Your task to perform on an android device: check google app version Image 0: 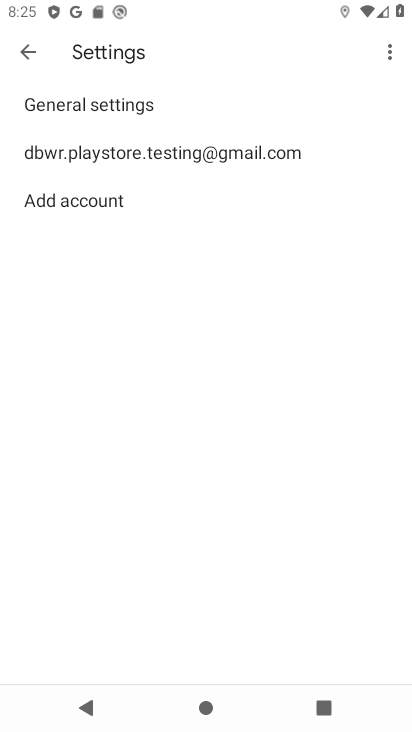
Step 0: press back button
Your task to perform on an android device: check google app version Image 1: 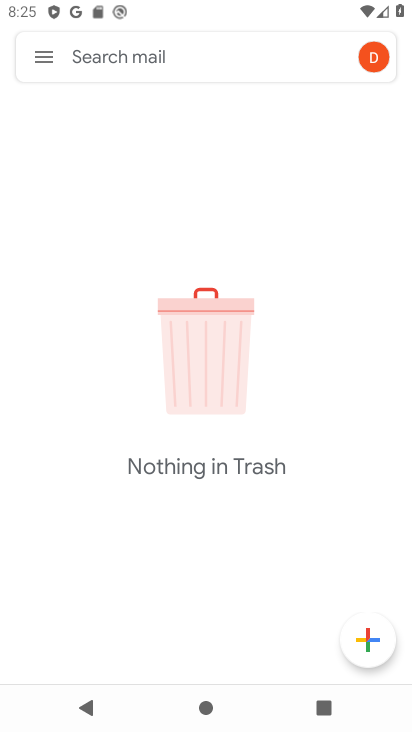
Step 1: press back button
Your task to perform on an android device: check google app version Image 2: 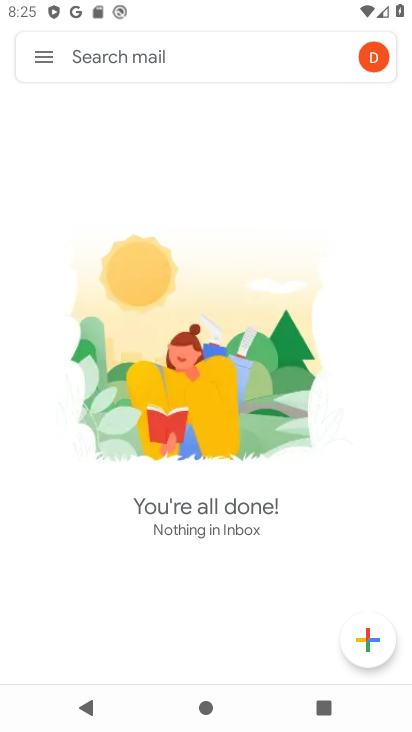
Step 2: press back button
Your task to perform on an android device: check google app version Image 3: 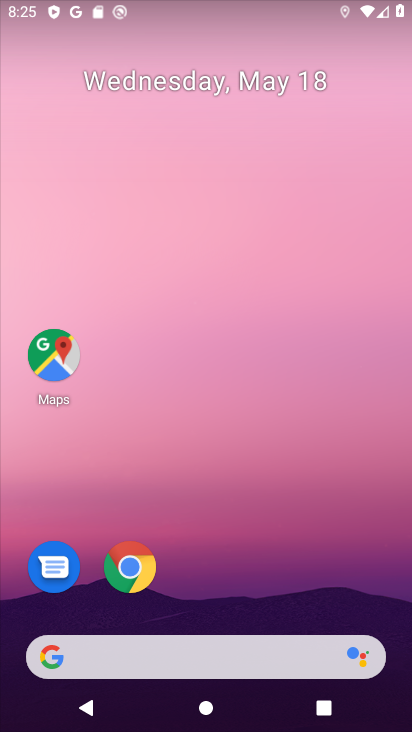
Step 3: drag from (269, 524) to (260, 0)
Your task to perform on an android device: check google app version Image 4: 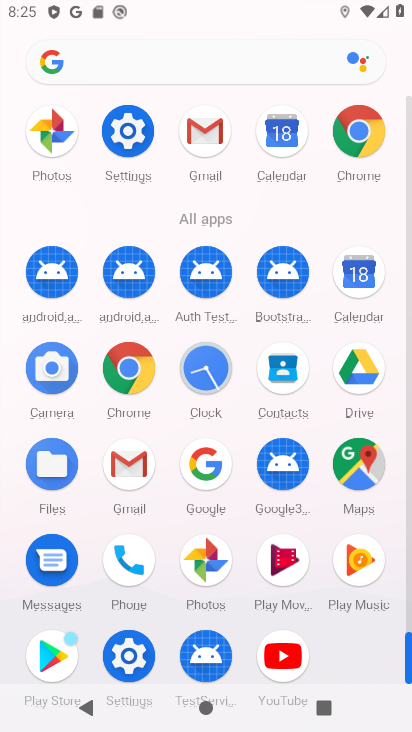
Step 4: click (213, 457)
Your task to perform on an android device: check google app version Image 5: 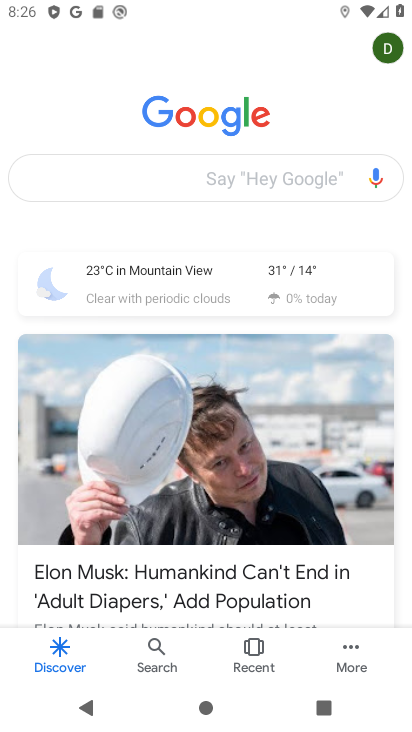
Step 5: click (343, 645)
Your task to perform on an android device: check google app version Image 6: 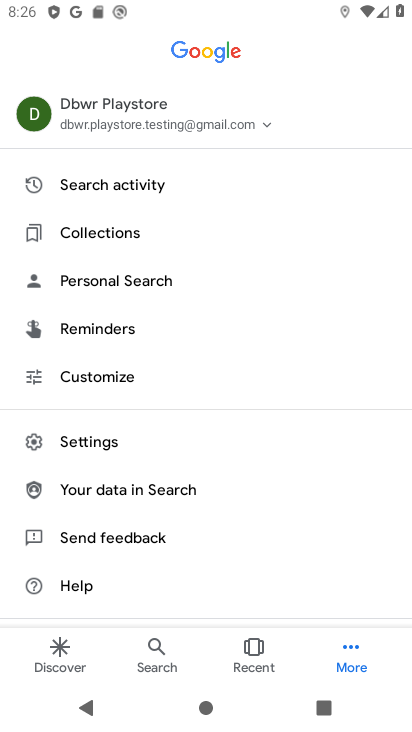
Step 6: drag from (346, 645) to (118, 441)
Your task to perform on an android device: check google app version Image 7: 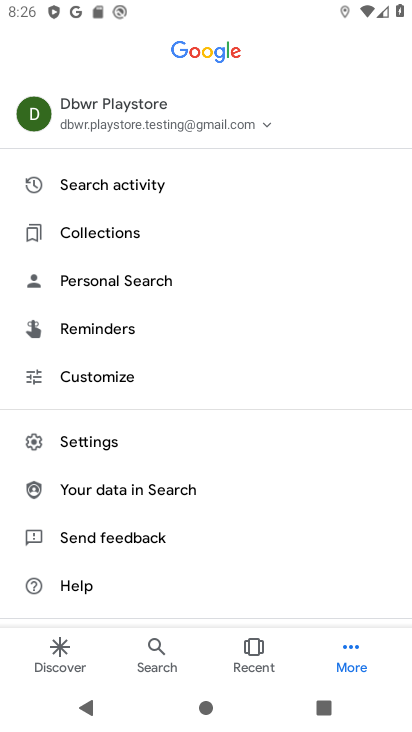
Step 7: click (108, 438)
Your task to perform on an android device: check google app version Image 8: 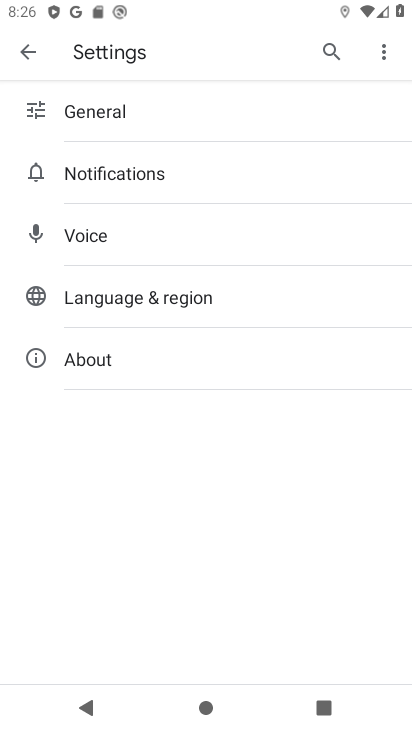
Step 8: click (95, 342)
Your task to perform on an android device: check google app version Image 9: 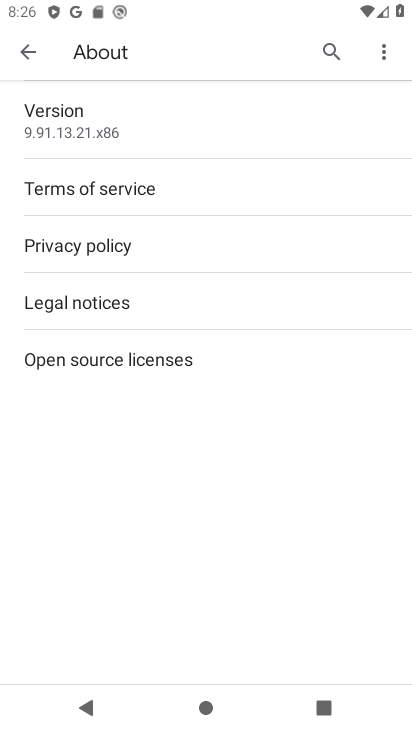
Step 9: task complete